Your task to perform on an android device: Go to Android settings Image 0: 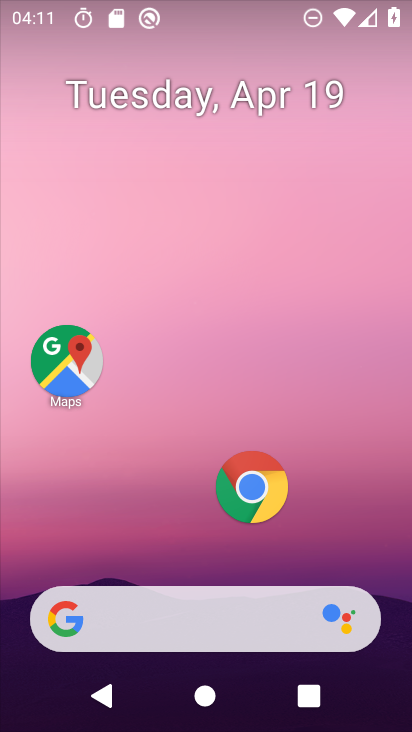
Step 0: drag from (183, 493) to (251, 35)
Your task to perform on an android device: Go to Android settings Image 1: 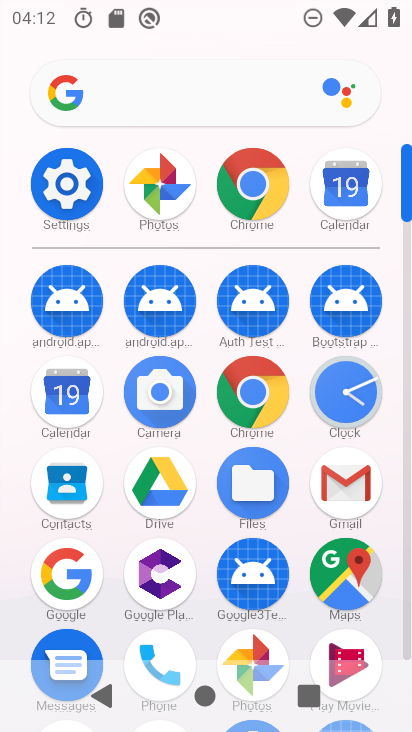
Step 1: click (73, 174)
Your task to perform on an android device: Go to Android settings Image 2: 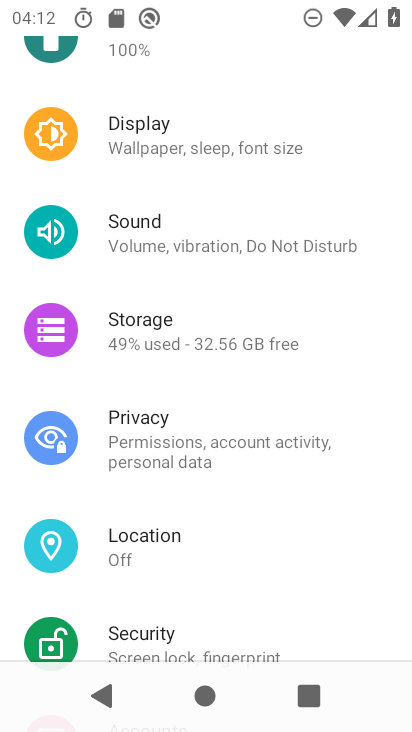
Step 2: drag from (180, 639) to (325, 55)
Your task to perform on an android device: Go to Android settings Image 3: 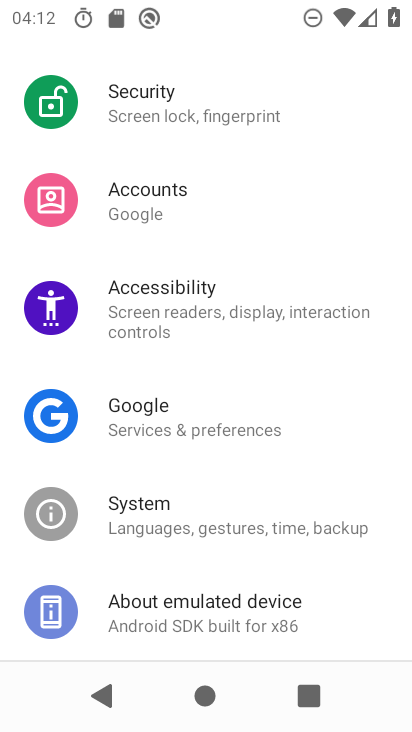
Step 3: drag from (216, 576) to (348, 14)
Your task to perform on an android device: Go to Android settings Image 4: 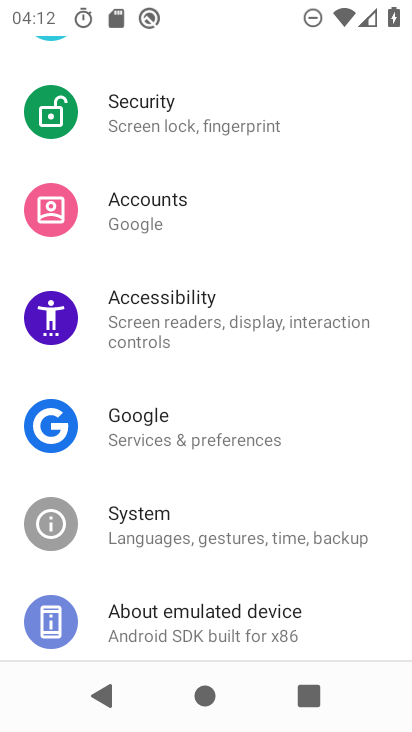
Step 4: click (208, 605)
Your task to perform on an android device: Go to Android settings Image 5: 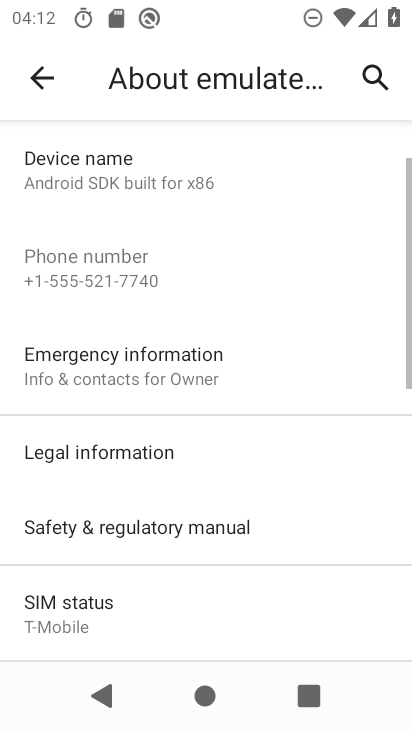
Step 5: drag from (139, 584) to (269, 92)
Your task to perform on an android device: Go to Android settings Image 6: 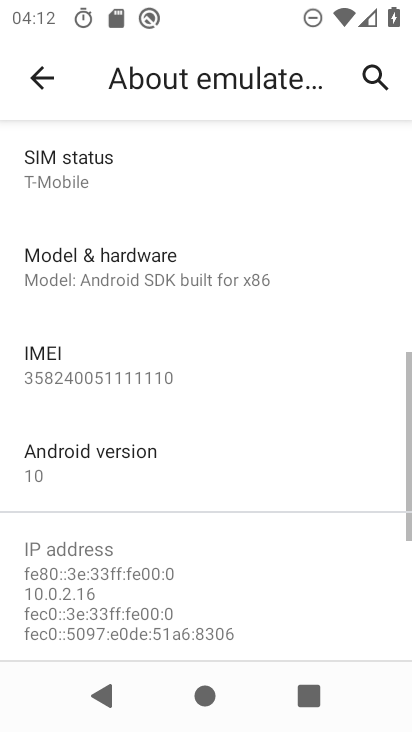
Step 6: click (141, 456)
Your task to perform on an android device: Go to Android settings Image 7: 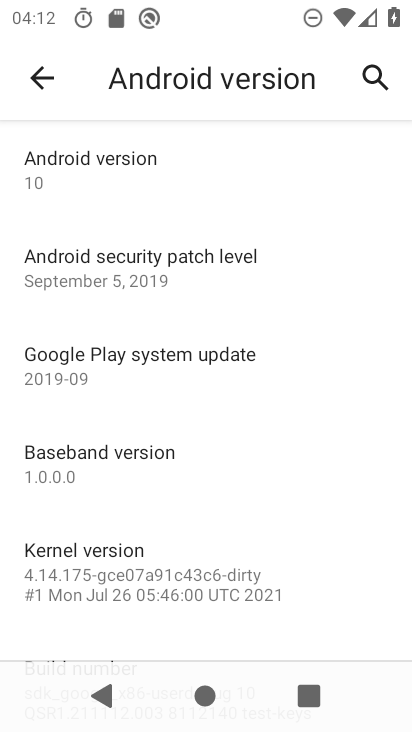
Step 7: task complete